Your task to perform on an android device: Open battery settings Image 0: 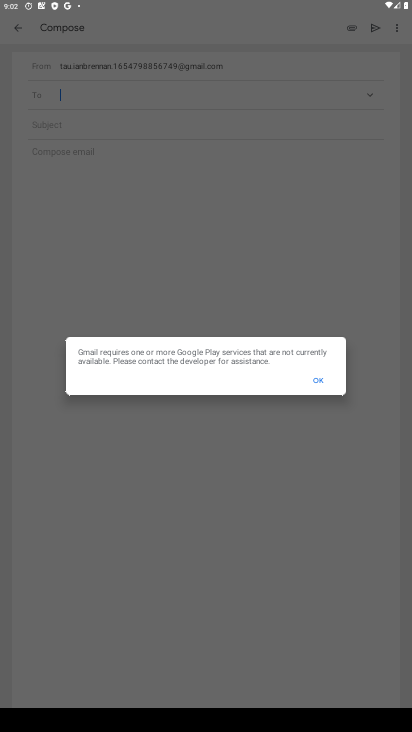
Step 0: drag from (187, 473) to (206, 300)
Your task to perform on an android device: Open battery settings Image 1: 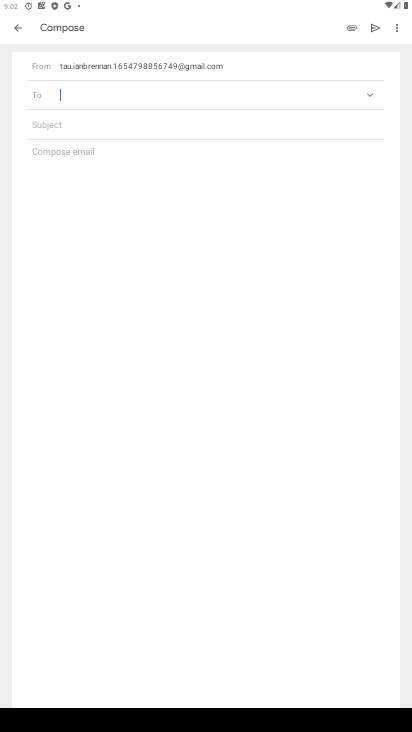
Step 1: press home button
Your task to perform on an android device: Open battery settings Image 2: 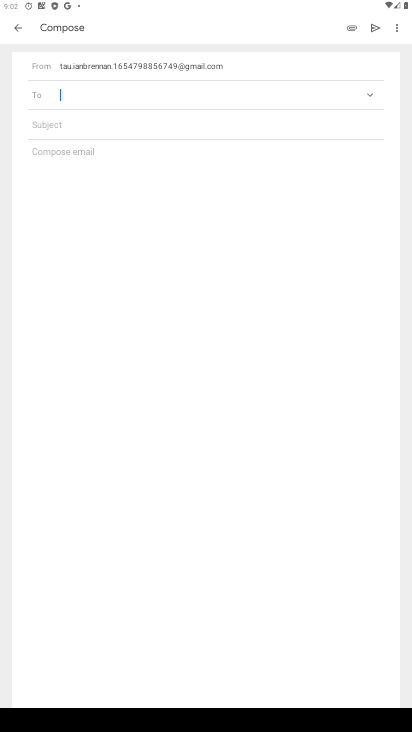
Step 2: press home button
Your task to perform on an android device: Open battery settings Image 3: 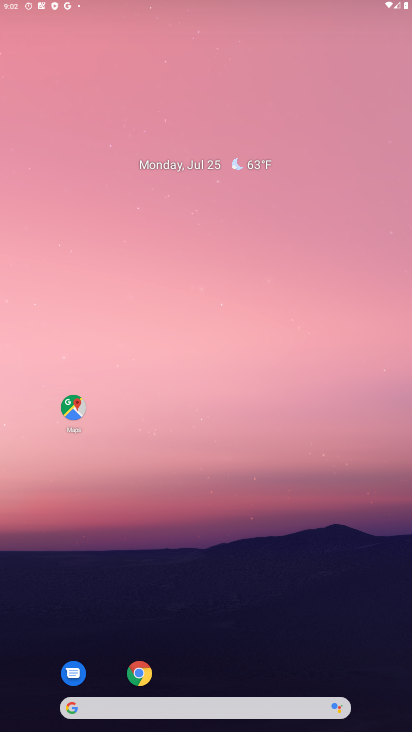
Step 3: drag from (157, 354) to (161, 240)
Your task to perform on an android device: Open battery settings Image 4: 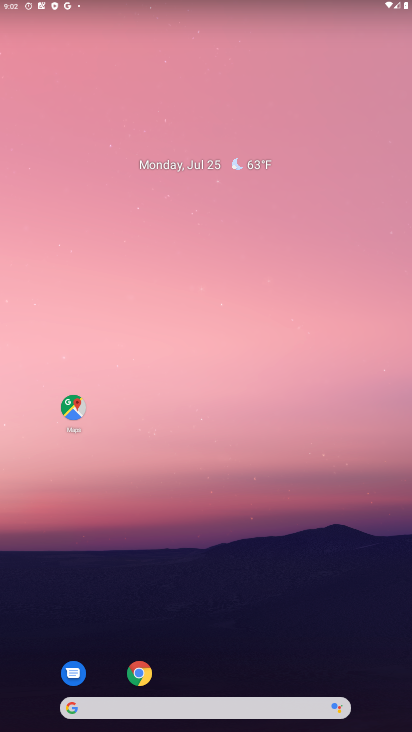
Step 4: drag from (204, 593) to (244, 6)
Your task to perform on an android device: Open battery settings Image 5: 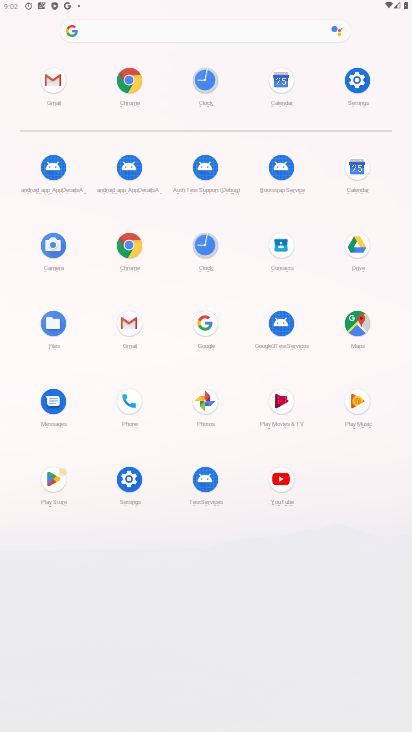
Step 5: drag from (226, 606) to (234, 238)
Your task to perform on an android device: Open battery settings Image 6: 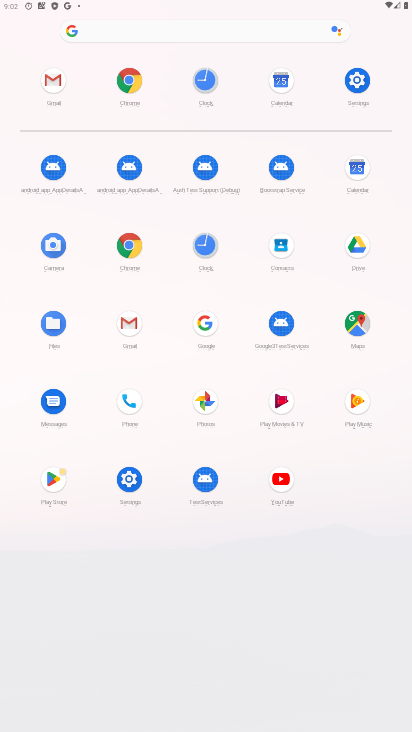
Step 6: drag from (242, 640) to (201, 265)
Your task to perform on an android device: Open battery settings Image 7: 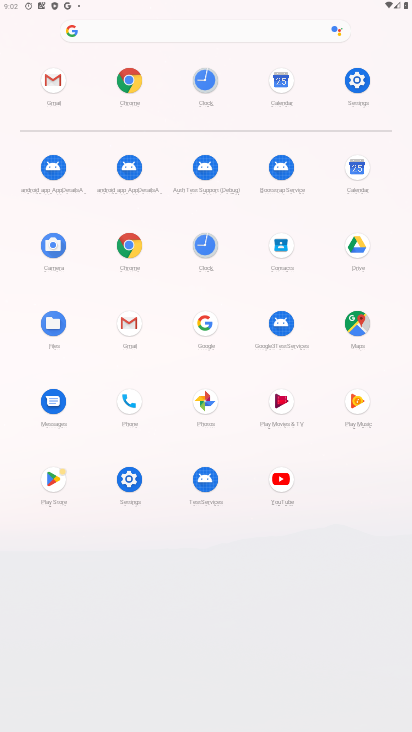
Step 7: click (131, 476)
Your task to perform on an android device: Open battery settings Image 8: 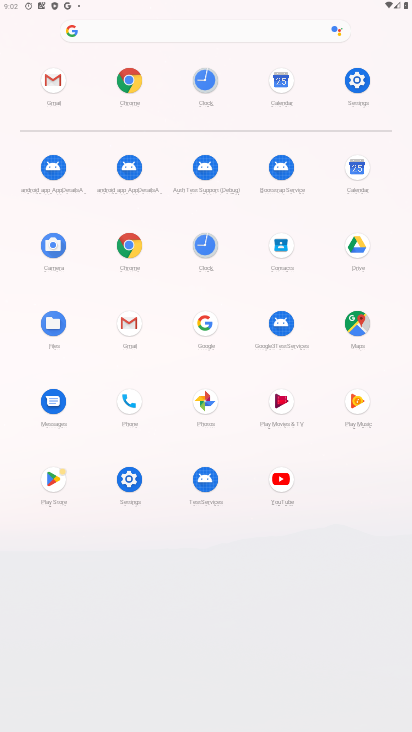
Step 8: click (131, 476)
Your task to perform on an android device: Open battery settings Image 9: 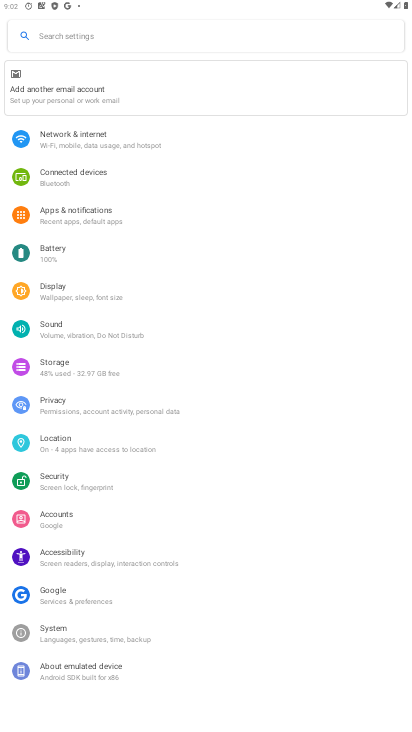
Step 9: drag from (144, 678) to (135, 341)
Your task to perform on an android device: Open battery settings Image 10: 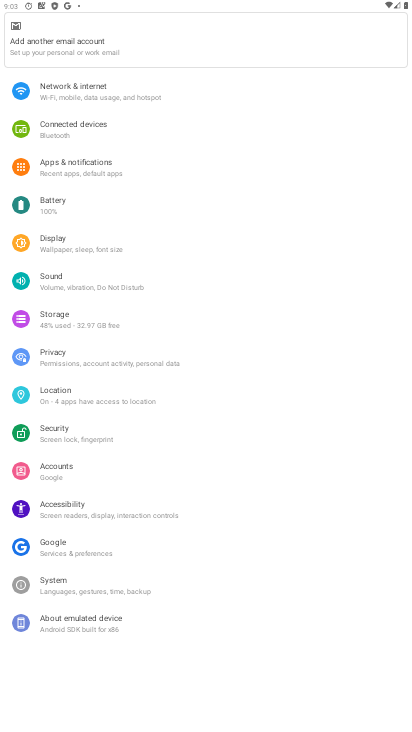
Step 10: click (81, 589)
Your task to perform on an android device: Open battery settings Image 11: 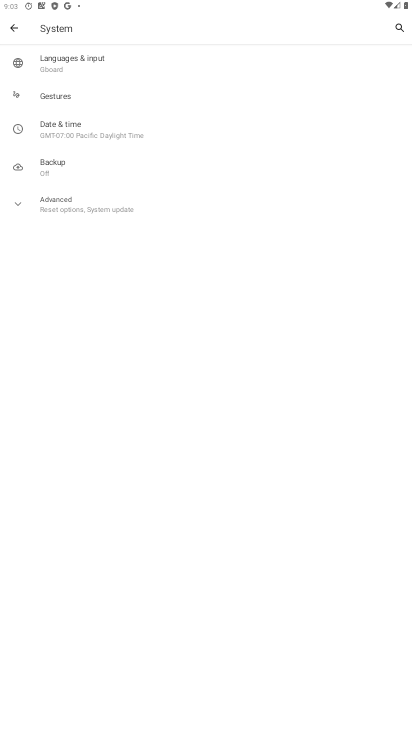
Step 11: click (4, 28)
Your task to perform on an android device: Open battery settings Image 12: 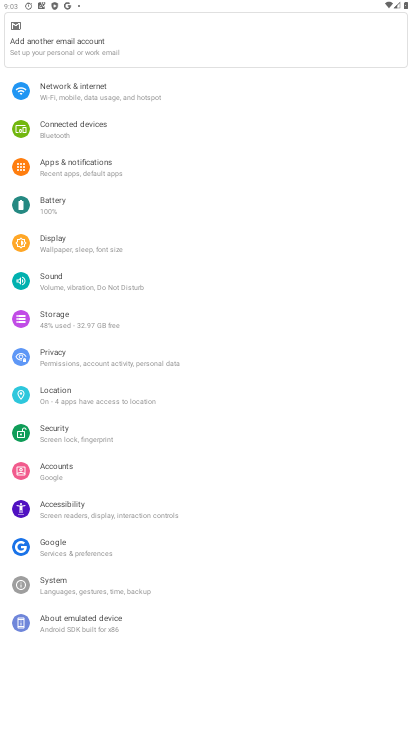
Step 12: drag from (179, 591) to (182, 223)
Your task to perform on an android device: Open battery settings Image 13: 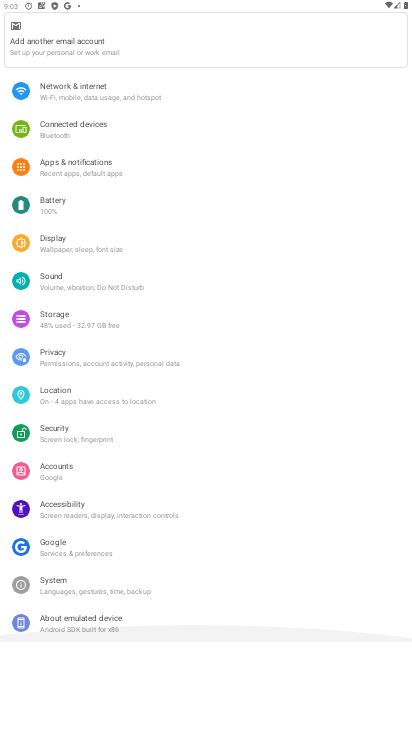
Step 13: drag from (166, 211) to (147, 728)
Your task to perform on an android device: Open battery settings Image 14: 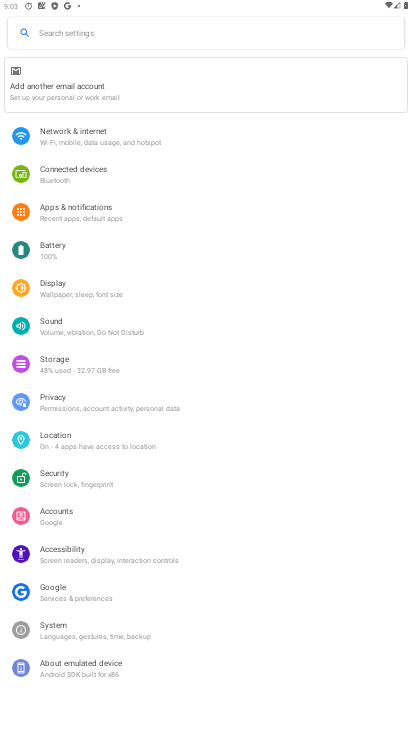
Step 14: drag from (162, 572) to (273, 169)
Your task to perform on an android device: Open battery settings Image 15: 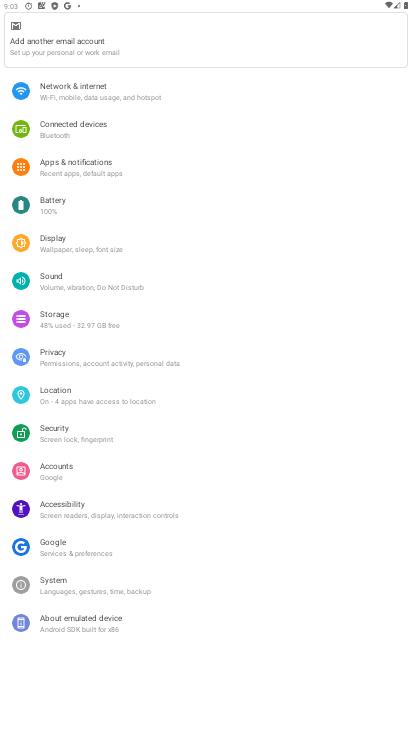
Step 15: drag from (188, 98) to (170, 725)
Your task to perform on an android device: Open battery settings Image 16: 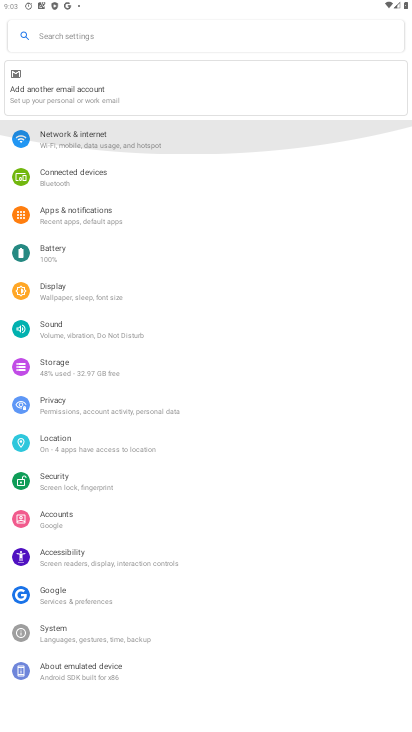
Step 16: drag from (155, 588) to (208, 209)
Your task to perform on an android device: Open battery settings Image 17: 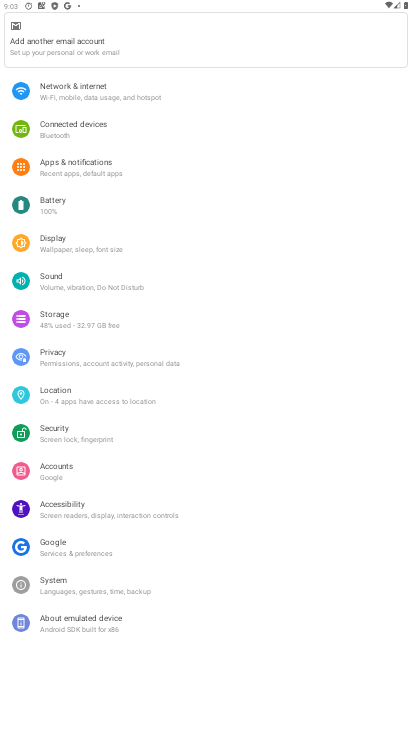
Step 17: click (80, 207)
Your task to perform on an android device: Open battery settings Image 18: 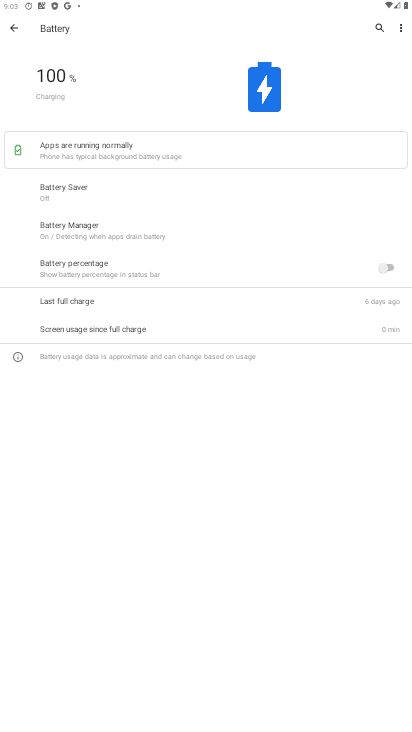
Step 18: task complete